Your task to perform on an android device: turn off translation in the chrome app Image 0: 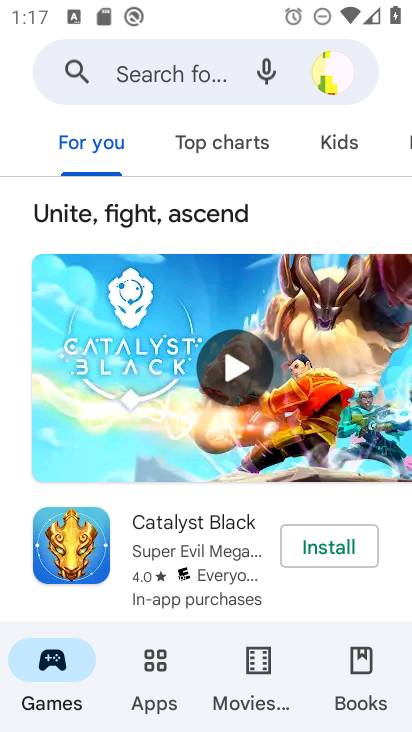
Step 0: press home button
Your task to perform on an android device: turn off translation in the chrome app Image 1: 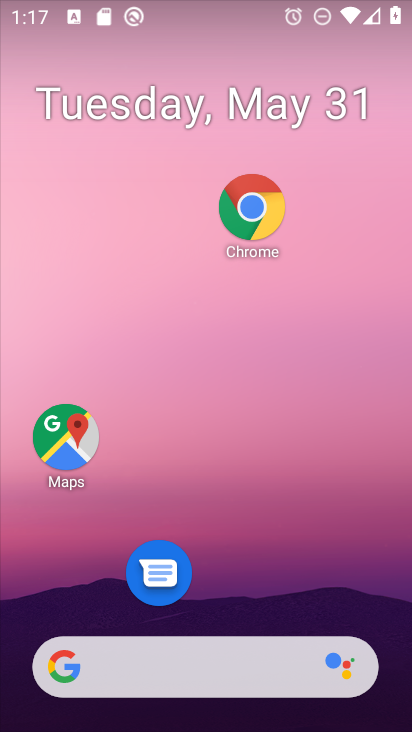
Step 1: drag from (228, 642) to (292, 147)
Your task to perform on an android device: turn off translation in the chrome app Image 2: 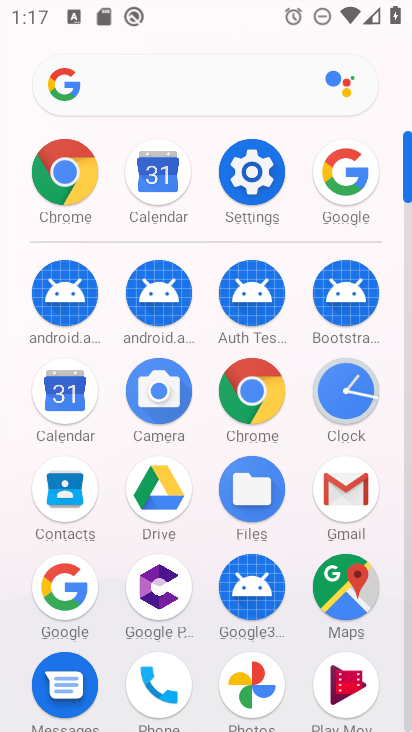
Step 2: click (258, 415)
Your task to perform on an android device: turn off translation in the chrome app Image 3: 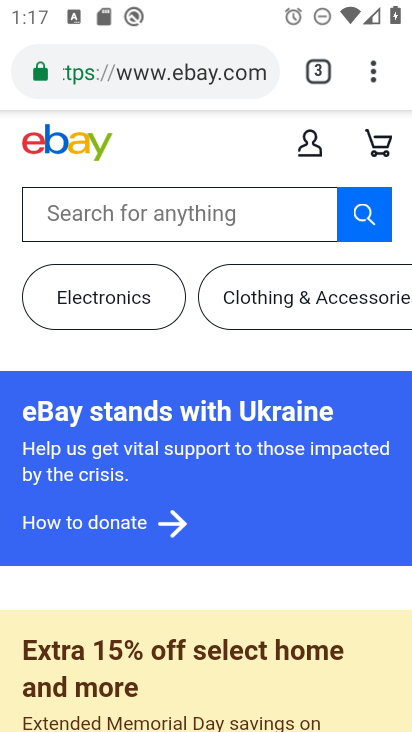
Step 3: click (369, 74)
Your task to perform on an android device: turn off translation in the chrome app Image 4: 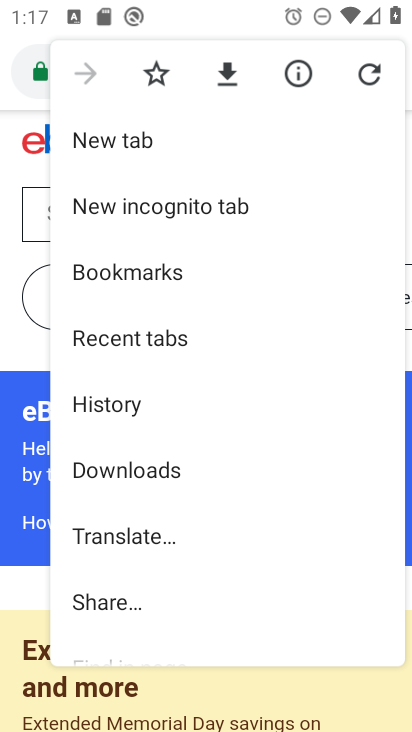
Step 4: click (165, 549)
Your task to perform on an android device: turn off translation in the chrome app Image 5: 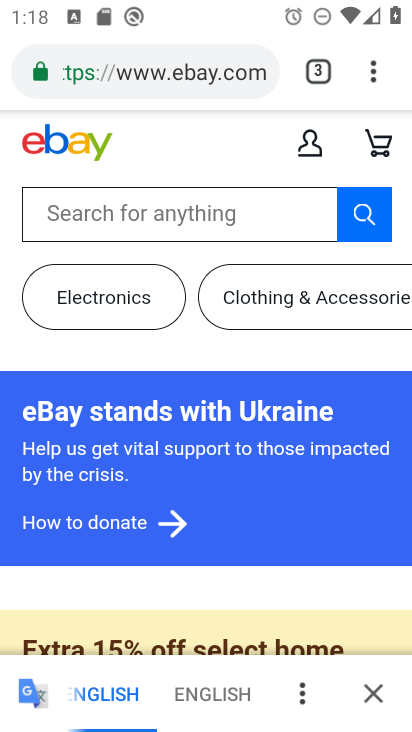
Step 5: click (306, 699)
Your task to perform on an android device: turn off translation in the chrome app Image 6: 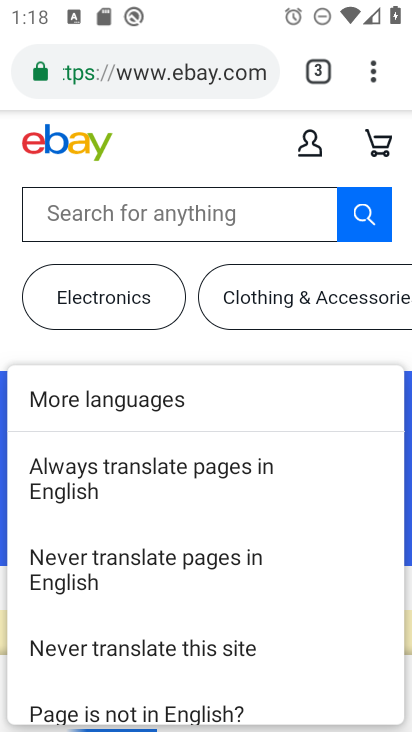
Step 6: click (213, 652)
Your task to perform on an android device: turn off translation in the chrome app Image 7: 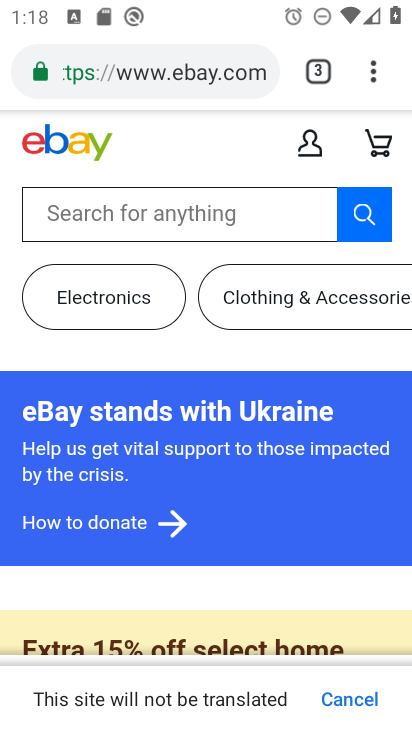
Step 7: task complete